Your task to perform on an android device: allow notifications from all sites in the chrome app Image 0: 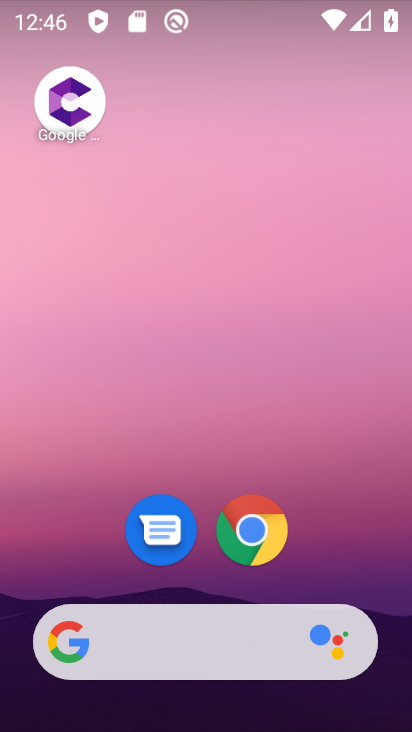
Step 0: click (250, 538)
Your task to perform on an android device: allow notifications from all sites in the chrome app Image 1: 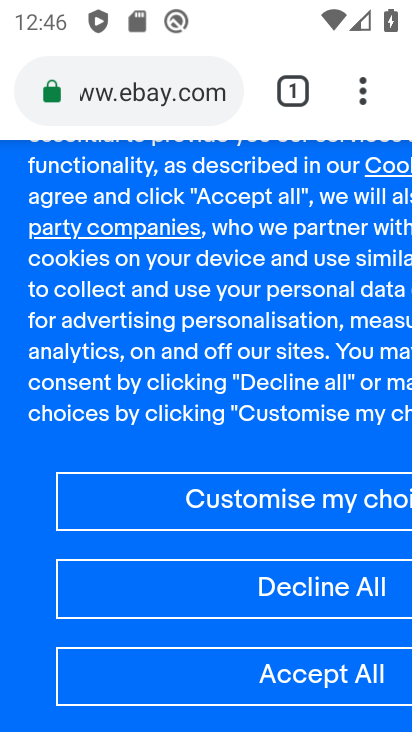
Step 1: click (357, 88)
Your task to perform on an android device: allow notifications from all sites in the chrome app Image 2: 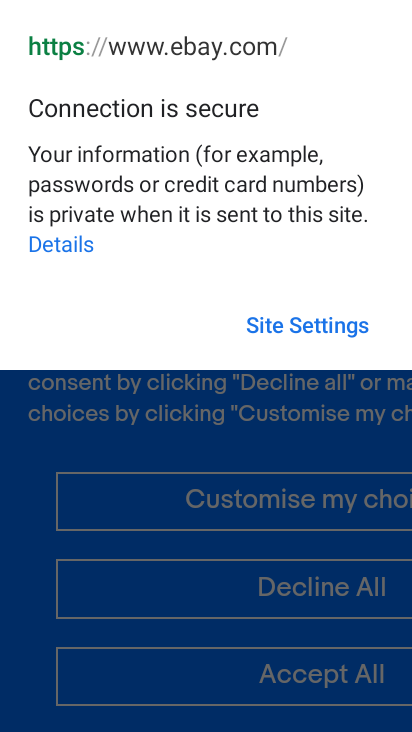
Step 2: click (297, 543)
Your task to perform on an android device: allow notifications from all sites in the chrome app Image 3: 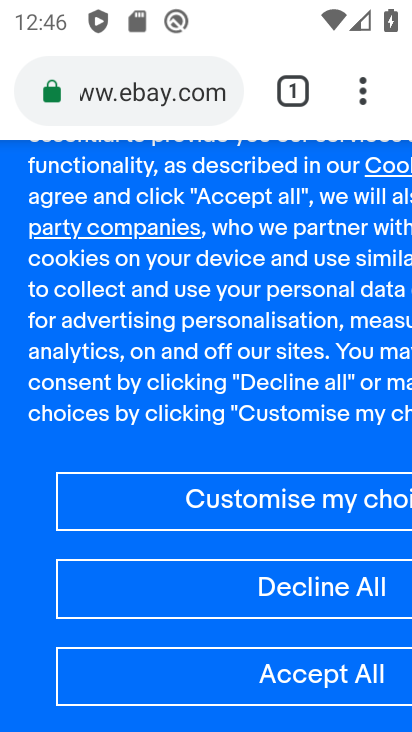
Step 3: click (357, 84)
Your task to perform on an android device: allow notifications from all sites in the chrome app Image 4: 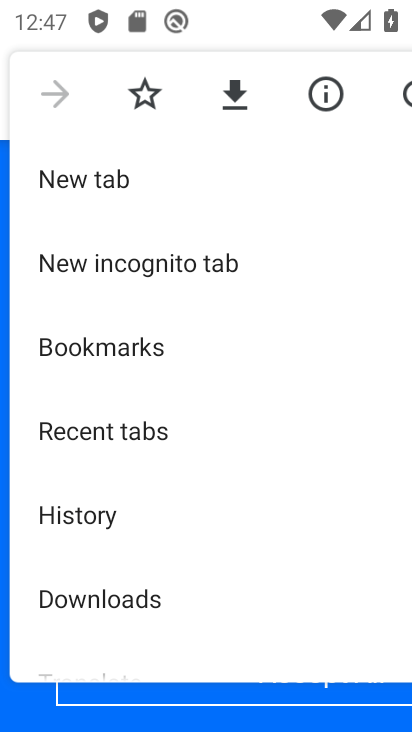
Step 4: drag from (200, 553) to (176, 200)
Your task to perform on an android device: allow notifications from all sites in the chrome app Image 5: 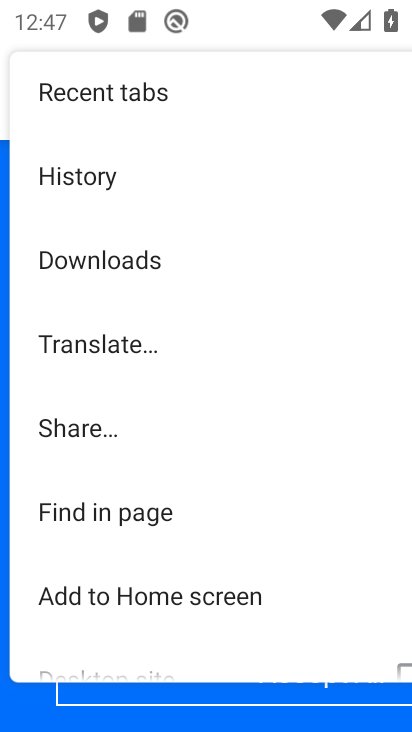
Step 5: drag from (205, 573) to (216, 139)
Your task to perform on an android device: allow notifications from all sites in the chrome app Image 6: 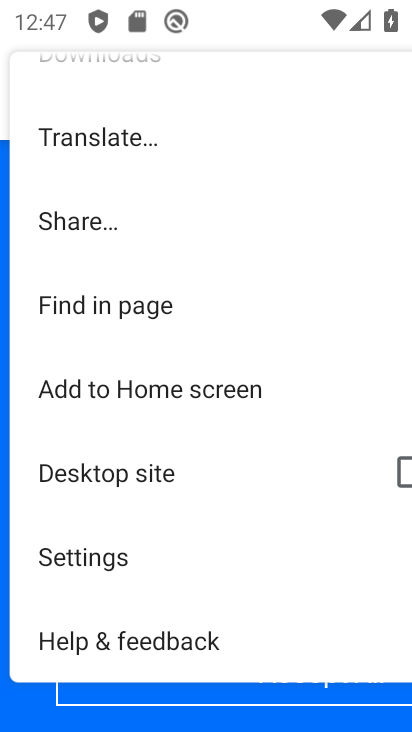
Step 6: click (232, 549)
Your task to perform on an android device: allow notifications from all sites in the chrome app Image 7: 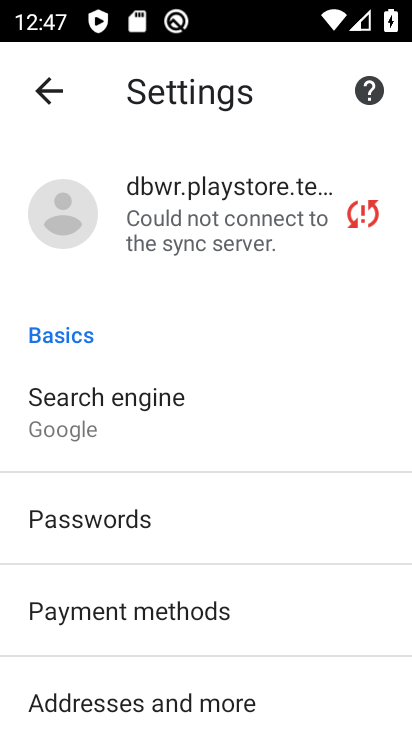
Step 7: drag from (218, 656) to (210, 299)
Your task to perform on an android device: allow notifications from all sites in the chrome app Image 8: 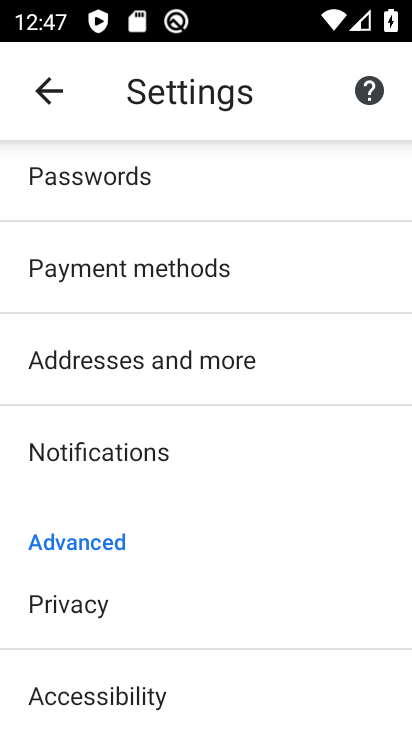
Step 8: drag from (224, 674) to (253, 249)
Your task to perform on an android device: allow notifications from all sites in the chrome app Image 9: 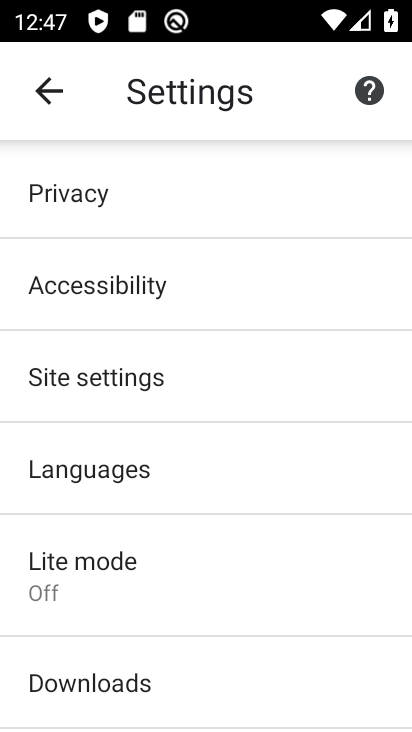
Step 9: drag from (213, 202) to (314, 584)
Your task to perform on an android device: allow notifications from all sites in the chrome app Image 10: 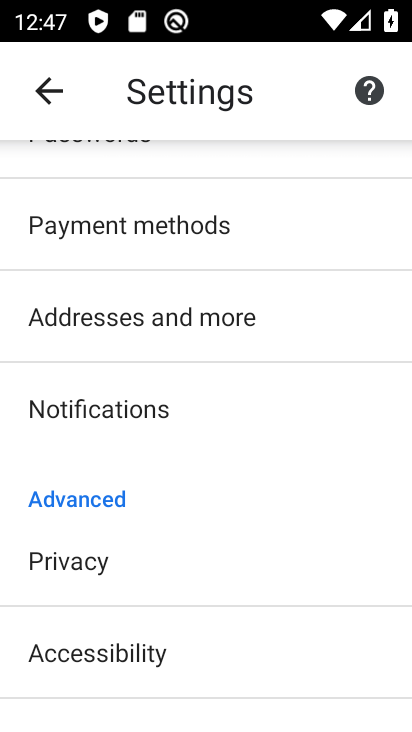
Step 10: click (272, 394)
Your task to perform on an android device: allow notifications from all sites in the chrome app Image 11: 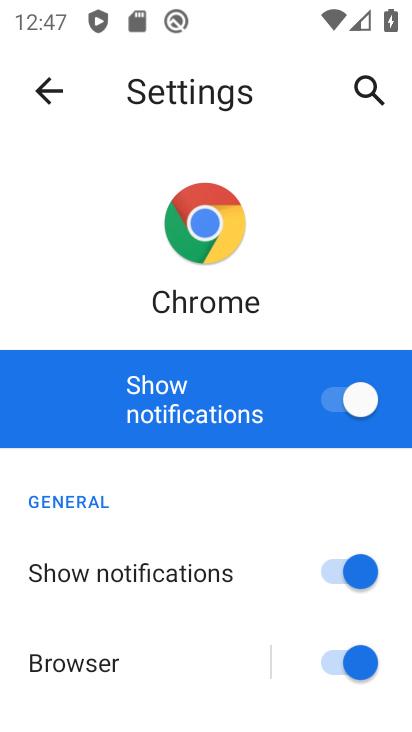
Step 11: task complete